Your task to perform on an android device: Toggle the flashlight Image 0: 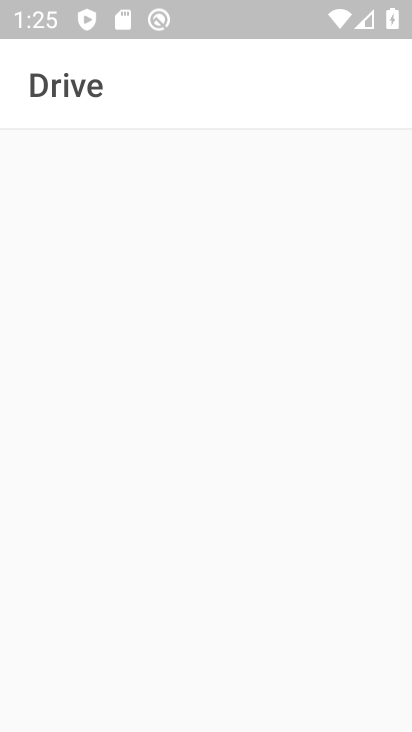
Step 0: press home button
Your task to perform on an android device: Toggle the flashlight Image 1: 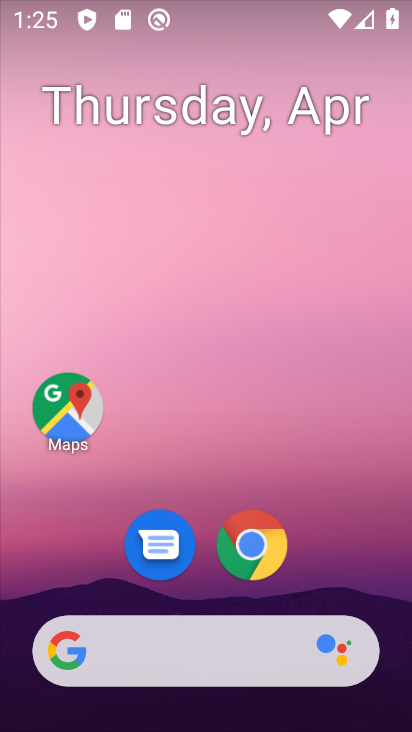
Step 1: task complete